Your task to perform on an android device: Turn on the flashlight Image 0: 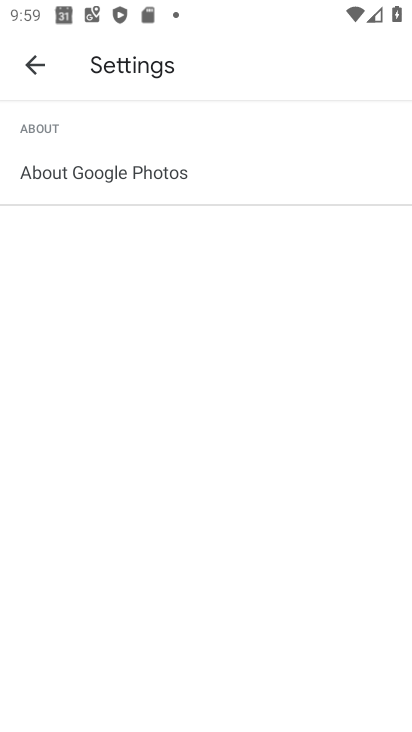
Step 0: press home button
Your task to perform on an android device: Turn on the flashlight Image 1: 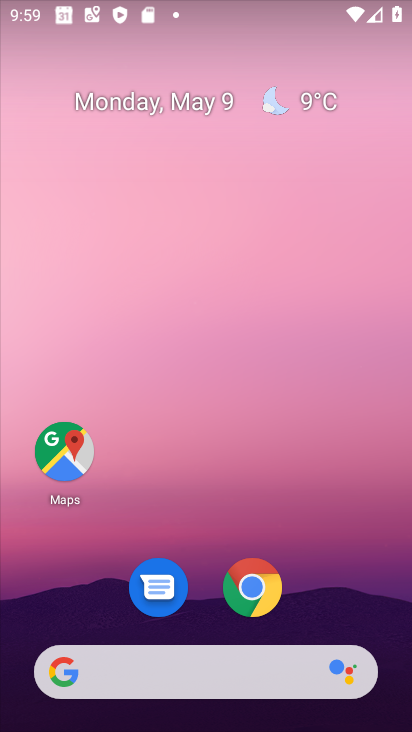
Step 1: drag from (330, 538) to (369, 0)
Your task to perform on an android device: Turn on the flashlight Image 2: 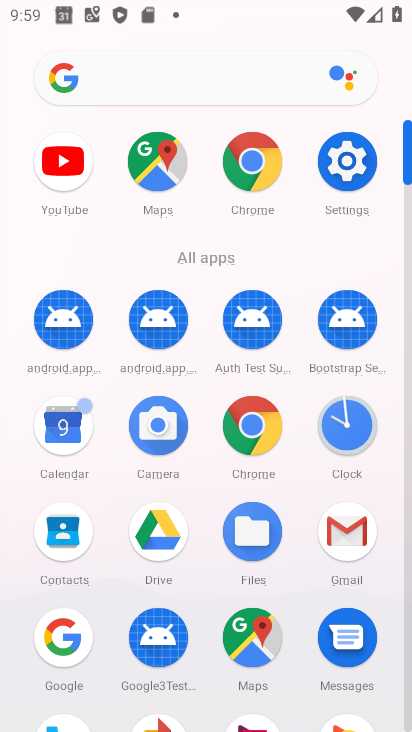
Step 2: click (350, 187)
Your task to perform on an android device: Turn on the flashlight Image 3: 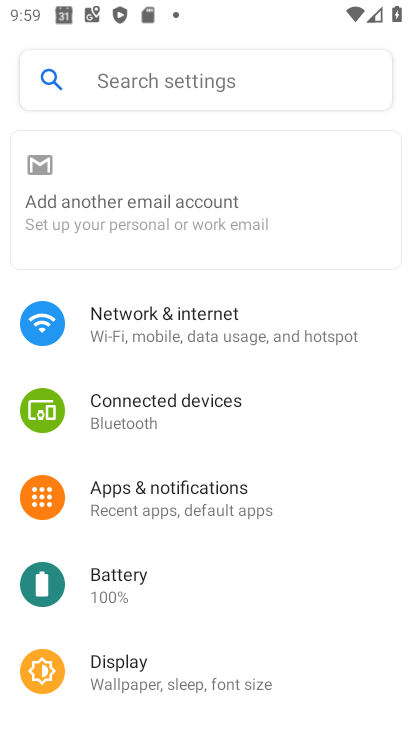
Step 3: task complete